Your task to perform on an android device: What's on my calendar tomorrow? Image 0: 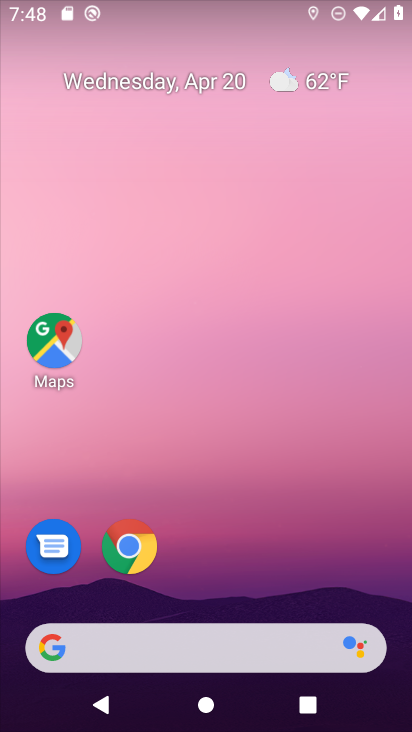
Step 0: drag from (215, 565) to (219, 109)
Your task to perform on an android device: What's on my calendar tomorrow? Image 1: 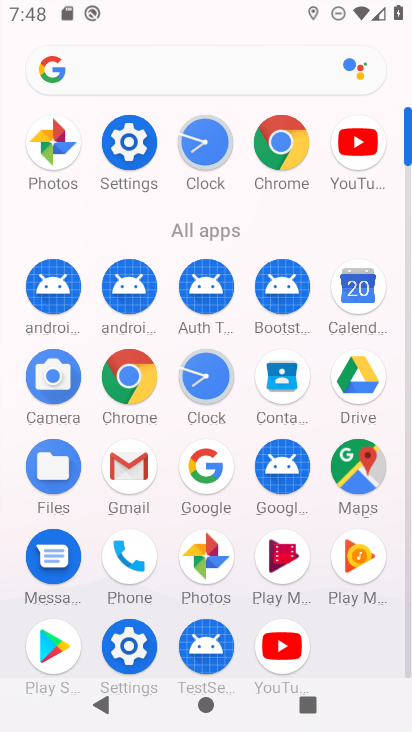
Step 1: click (356, 289)
Your task to perform on an android device: What's on my calendar tomorrow? Image 2: 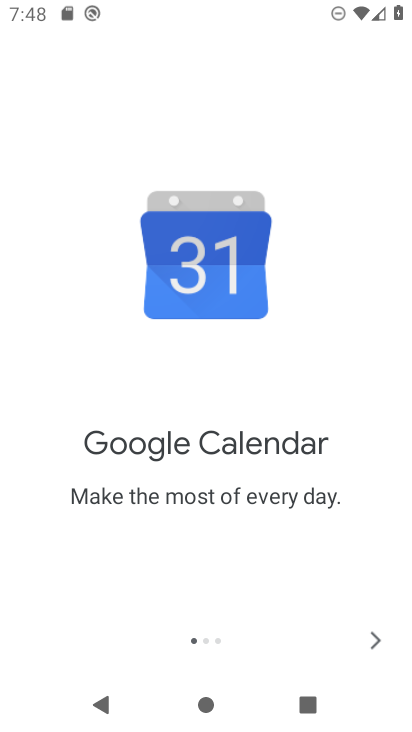
Step 2: click (378, 636)
Your task to perform on an android device: What's on my calendar tomorrow? Image 3: 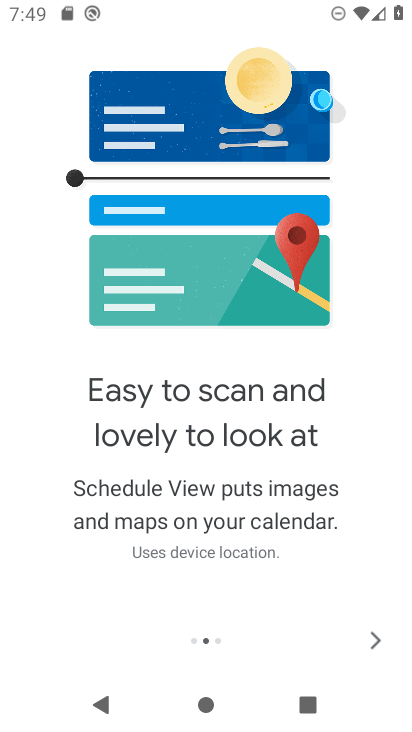
Step 3: click (378, 636)
Your task to perform on an android device: What's on my calendar tomorrow? Image 4: 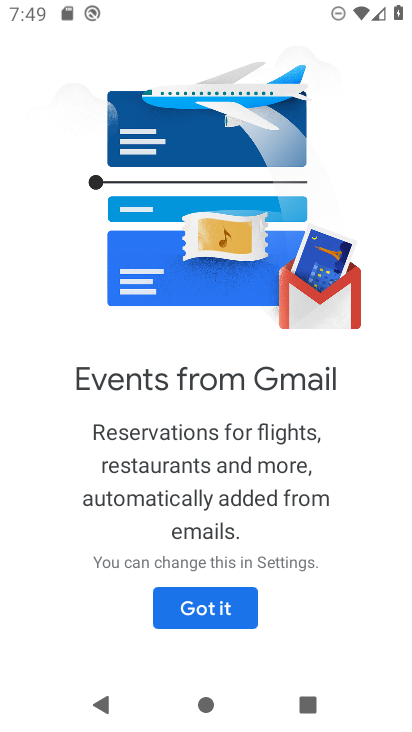
Step 4: click (245, 600)
Your task to perform on an android device: What's on my calendar tomorrow? Image 5: 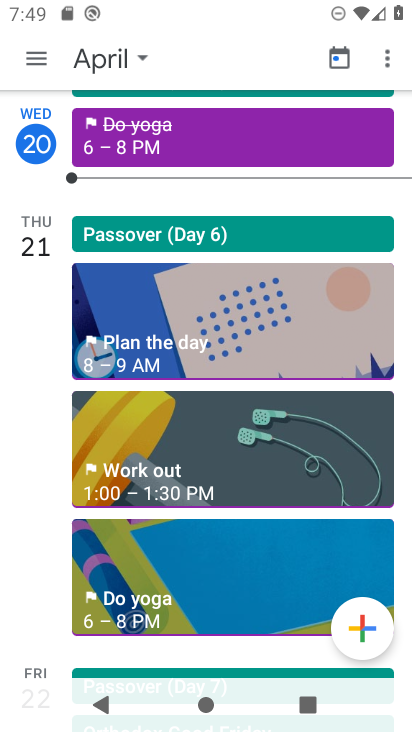
Step 5: click (232, 561)
Your task to perform on an android device: What's on my calendar tomorrow? Image 6: 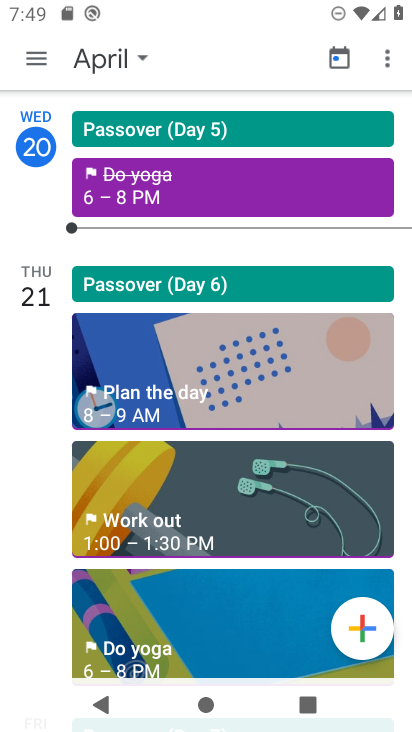
Step 6: click (254, 402)
Your task to perform on an android device: What's on my calendar tomorrow? Image 7: 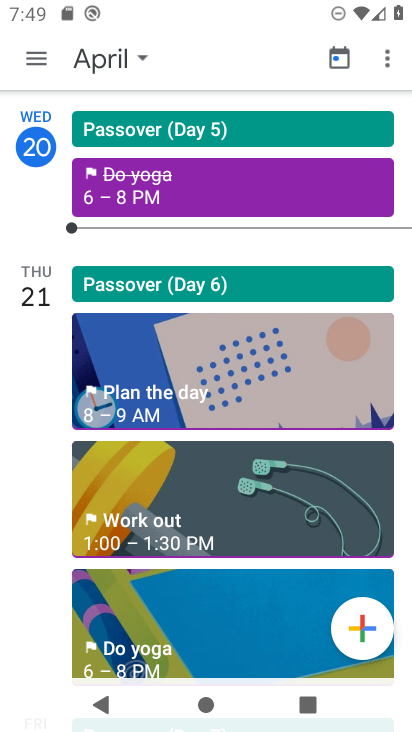
Step 7: task complete